Your task to perform on an android device: uninstall "Skype" Image 0: 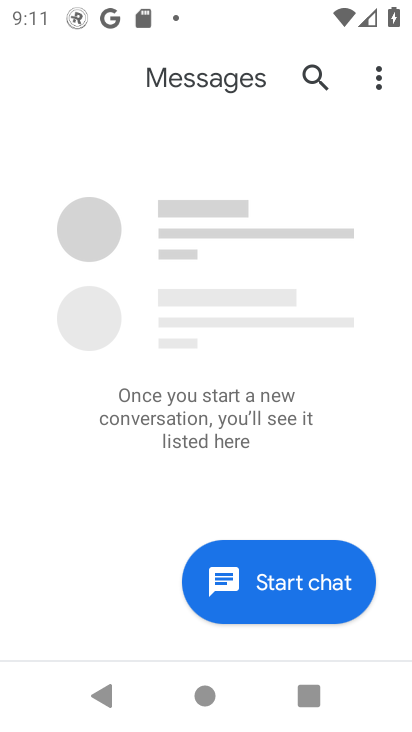
Step 0: press back button
Your task to perform on an android device: uninstall "Skype" Image 1: 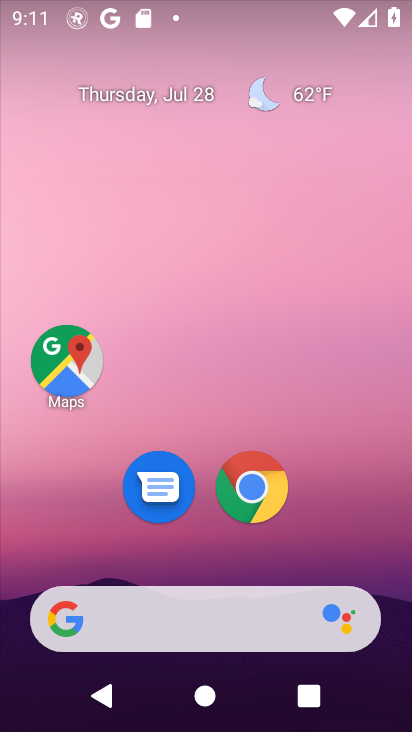
Step 1: drag from (241, 459) to (127, 56)
Your task to perform on an android device: uninstall "Skype" Image 2: 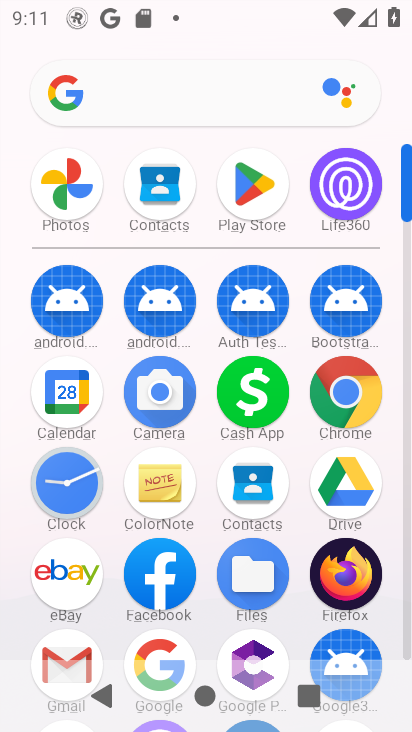
Step 2: click (246, 202)
Your task to perform on an android device: uninstall "Skype" Image 3: 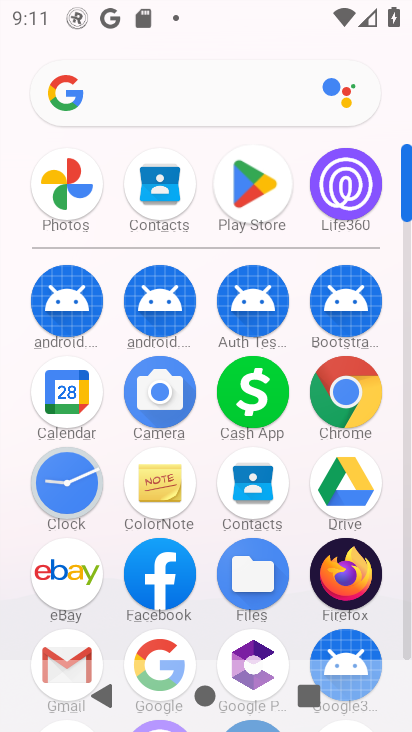
Step 3: click (246, 202)
Your task to perform on an android device: uninstall "Skype" Image 4: 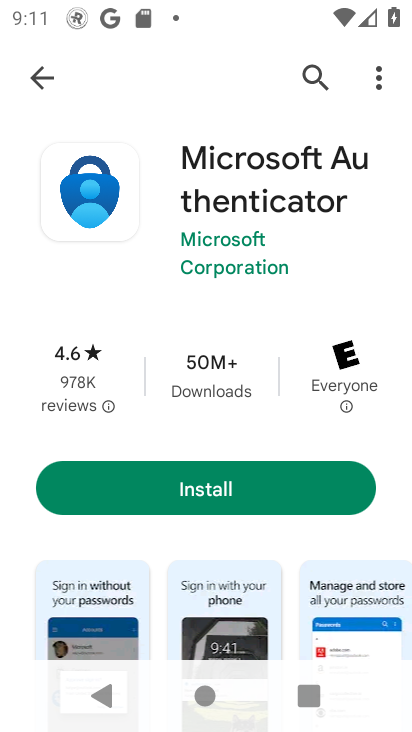
Step 4: click (42, 95)
Your task to perform on an android device: uninstall "Skype" Image 5: 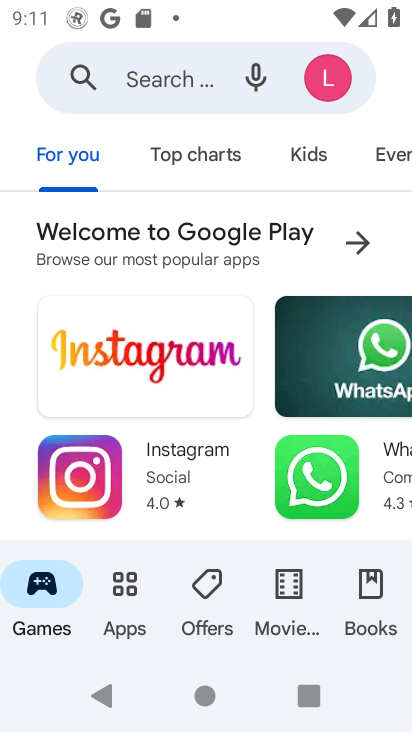
Step 5: click (135, 78)
Your task to perform on an android device: uninstall "Skype" Image 6: 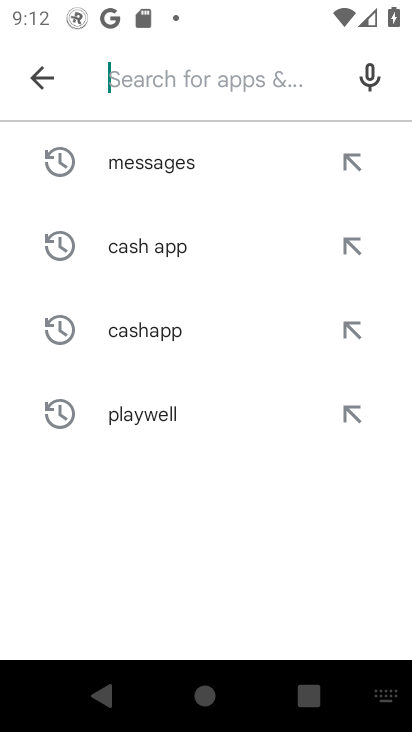
Step 6: type "skype"
Your task to perform on an android device: uninstall "Skype" Image 7: 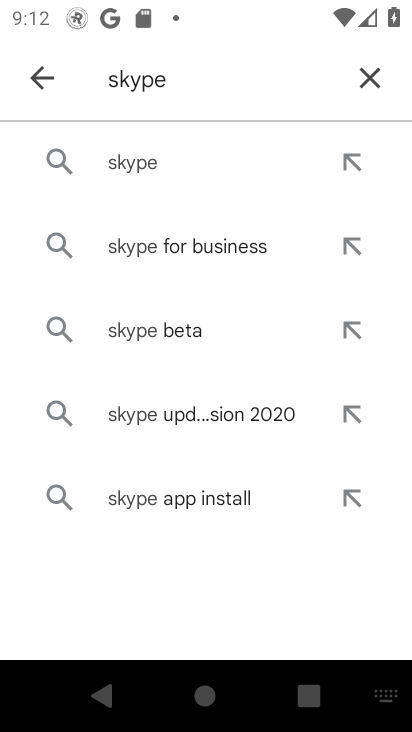
Step 7: click (150, 155)
Your task to perform on an android device: uninstall "Skype" Image 8: 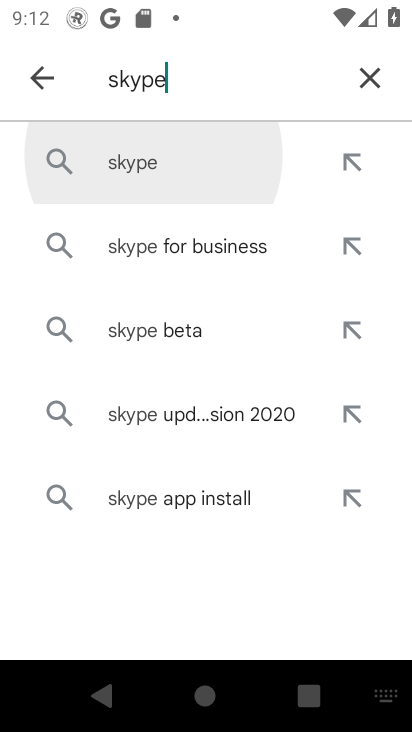
Step 8: click (149, 157)
Your task to perform on an android device: uninstall "Skype" Image 9: 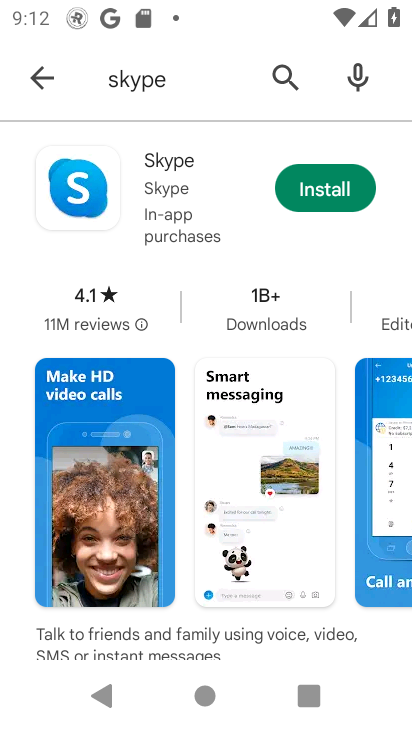
Step 9: task complete